Your task to perform on an android device: Open location settings Image 0: 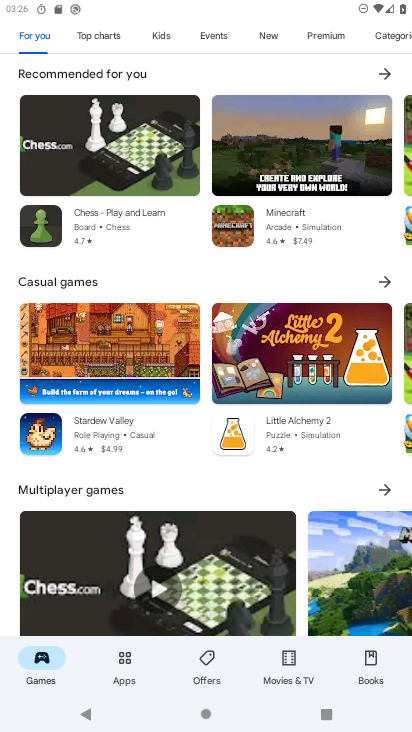
Step 0: press home button
Your task to perform on an android device: Open location settings Image 1: 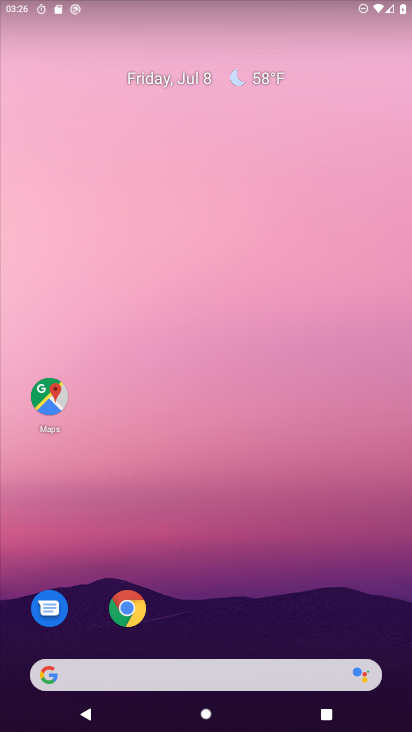
Step 1: drag from (250, 718) to (243, 69)
Your task to perform on an android device: Open location settings Image 2: 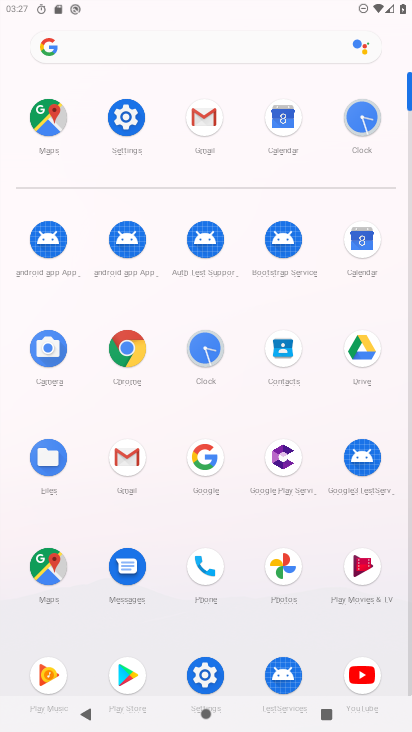
Step 2: click (126, 118)
Your task to perform on an android device: Open location settings Image 3: 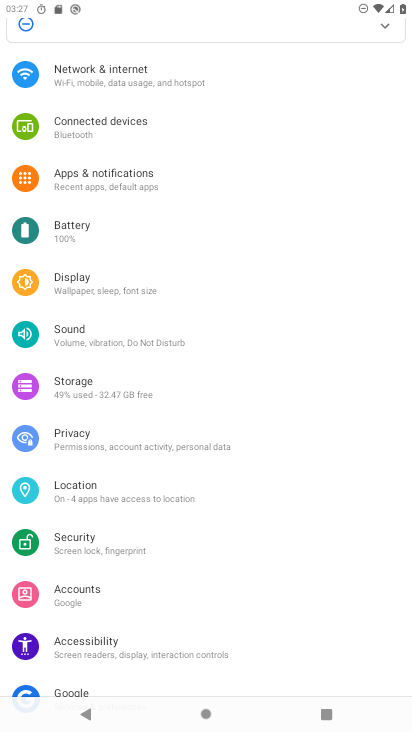
Step 3: click (79, 486)
Your task to perform on an android device: Open location settings Image 4: 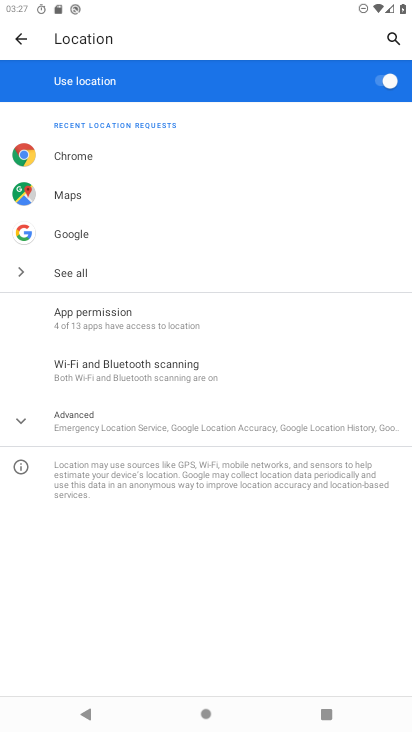
Step 4: task complete